Your task to perform on an android device: choose inbox layout in the gmail app Image 0: 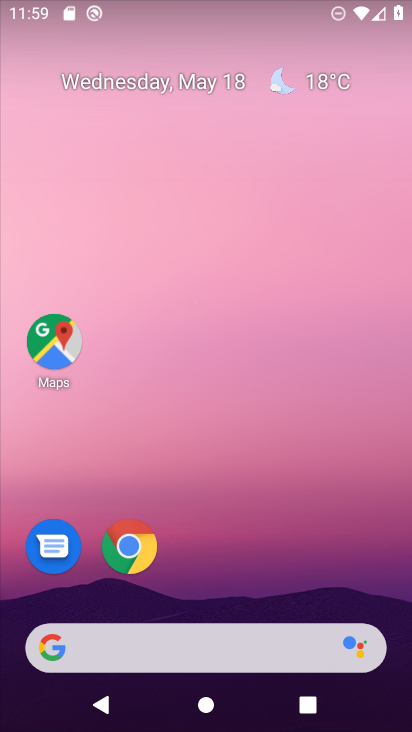
Step 0: drag from (233, 715) to (235, 149)
Your task to perform on an android device: choose inbox layout in the gmail app Image 1: 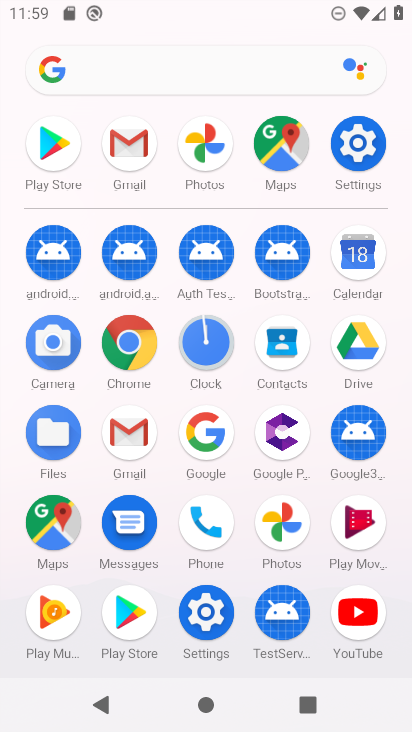
Step 1: click (126, 426)
Your task to perform on an android device: choose inbox layout in the gmail app Image 2: 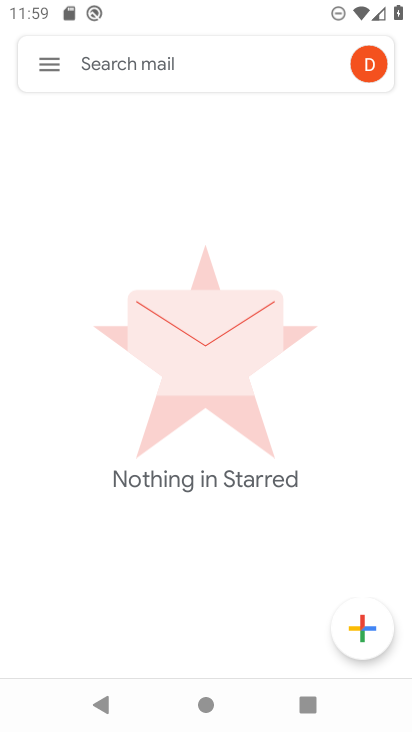
Step 2: click (49, 63)
Your task to perform on an android device: choose inbox layout in the gmail app Image 3: 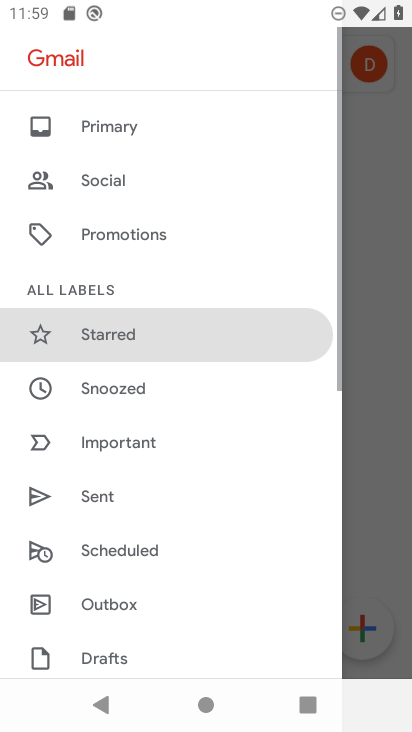
Step 3: drag from (169, 626) to (154, 226)
Your task to perform on an android device: choose inbox layout in the gmail app Image 4: 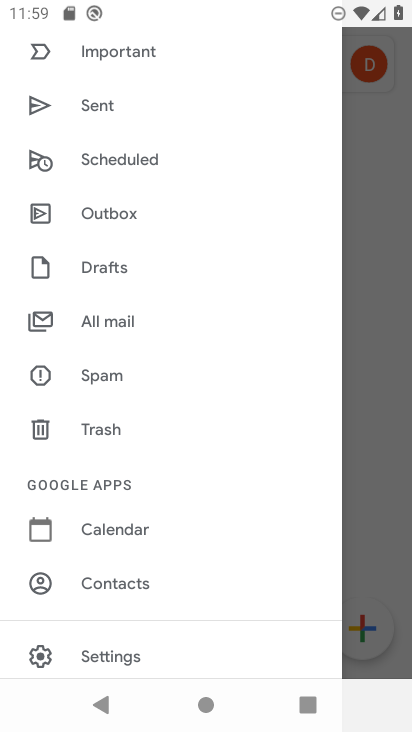
Step 4: click (95, 660)
Your task to perform on an android device: choose inbox layout in the gmail app Image 5: 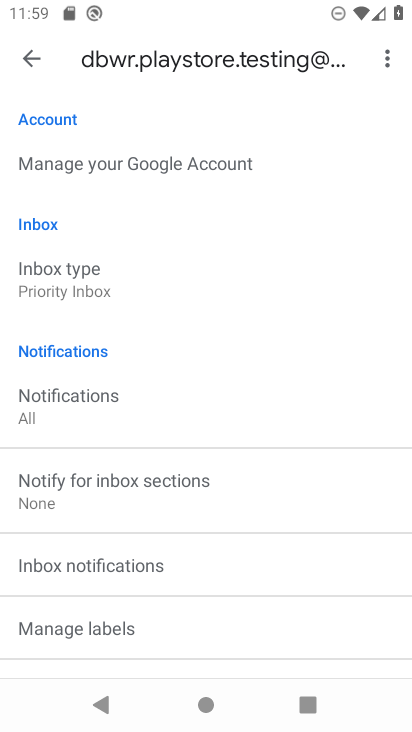
Step 5: click (64, 285)
Your task to perform on an android device: choose inbox layout in the gmail app Image 6: 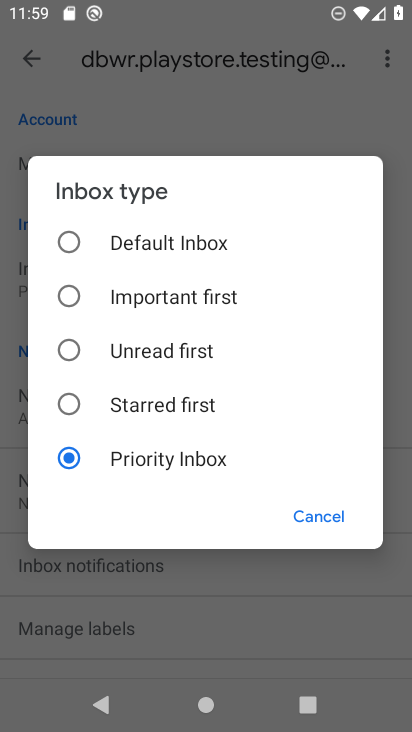
Step 6: click (64, 239)
Your task to perform on an android device: choose inbox layout in the gmail app Image 7: 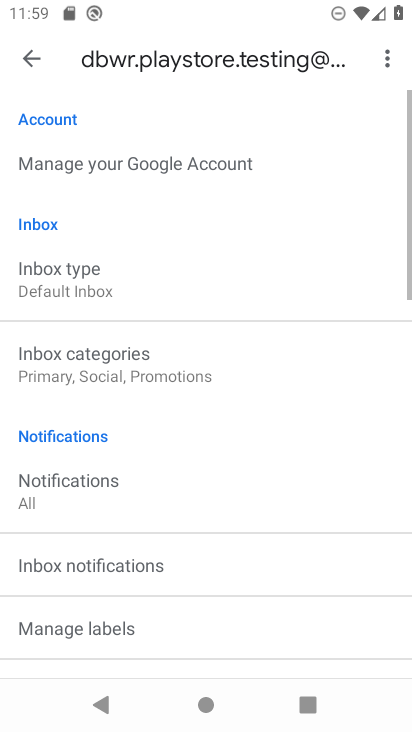
Step 7: task complete